Your task to perform on an android device: Open the phone app and click the voicemail tab. Image 0: 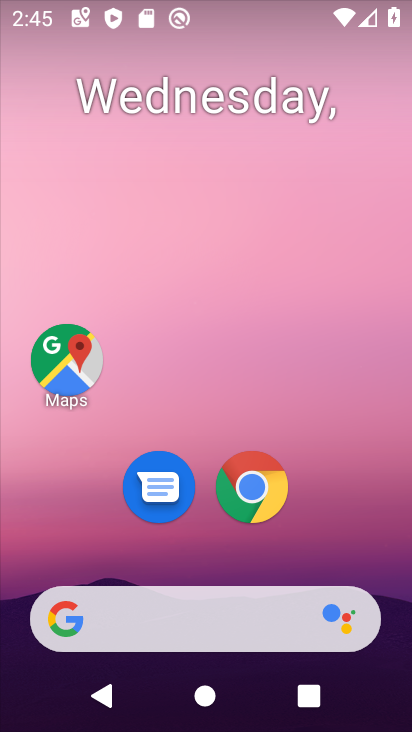
Step 0: drag from (373, 504) to (360, 200)
Your task to perform on an android device: Open the phone app and click the voicemail tab. Image 1: 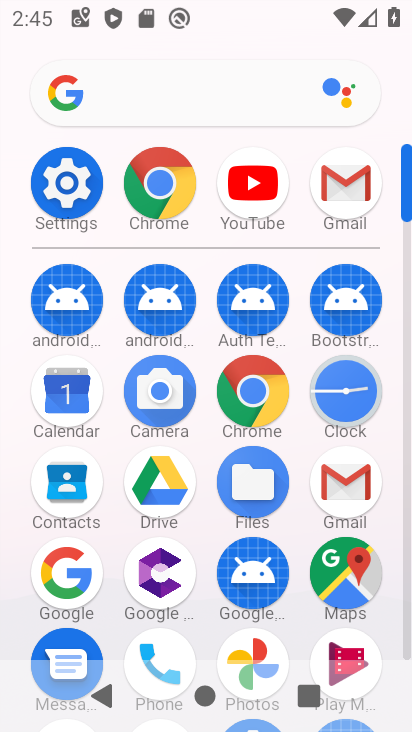
Step 1: drag from (385, 436) to (390, 206)
Your task to perform on an android device: Open the phone app and click the voicemail tab. Image 2: 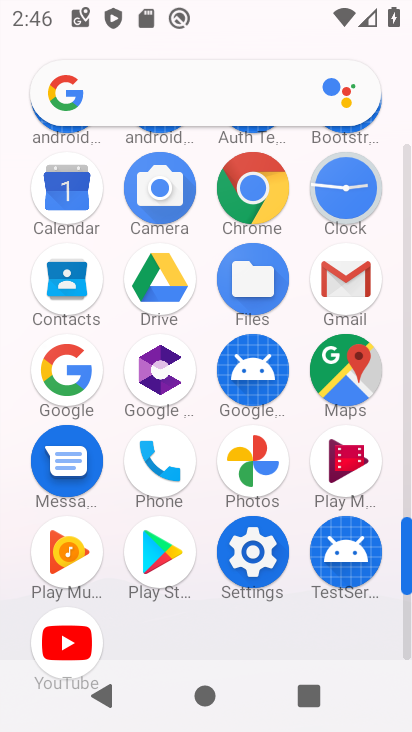
Step 2: click (348, 461)
Your task to perform on an android device: Open the phone app and click the voicemail tab. Image 3: 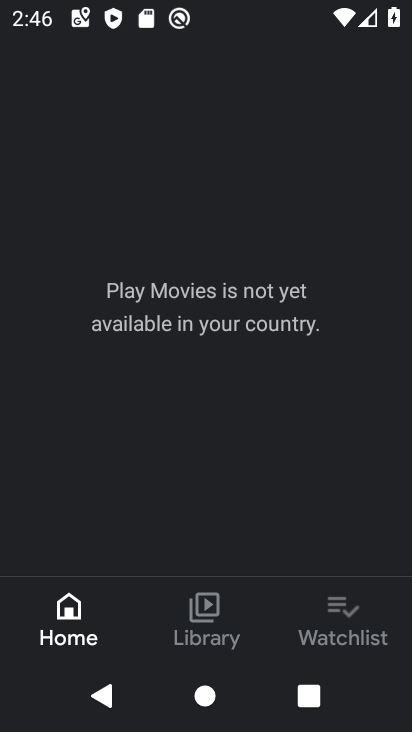
Step 3: click (347, 613)
Your task to perform on an android device: Open the phone app and click the voicemail tab. Image 4: 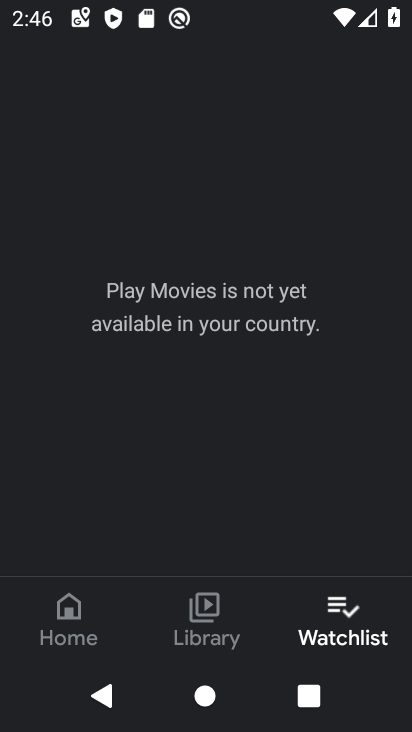
Step 4: task complete